Your task to perform on an android device: turn off location Image 0: 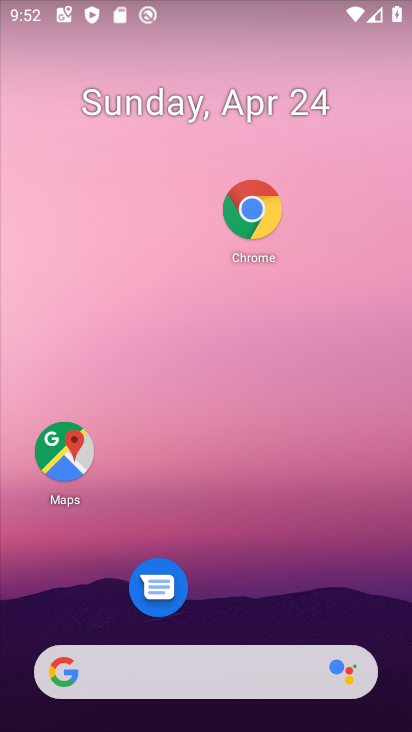
Step 0: drag from (228, 488) to (189, 20)
Your task to perform on an android device: turn off location Image 1: 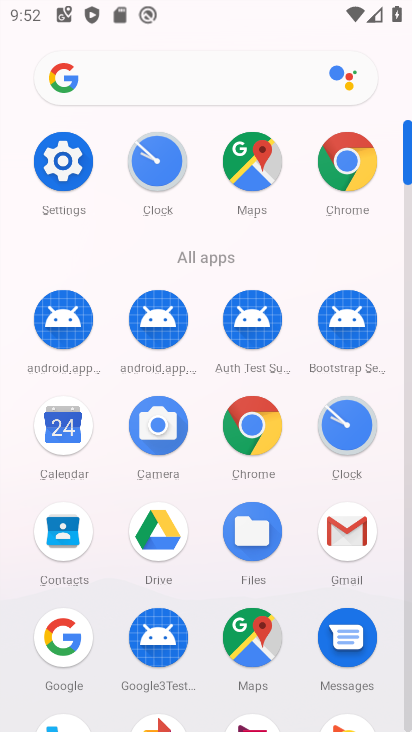
Step 1: click (62, 164)
Your task to perform on an android device: turn off location Image 2: 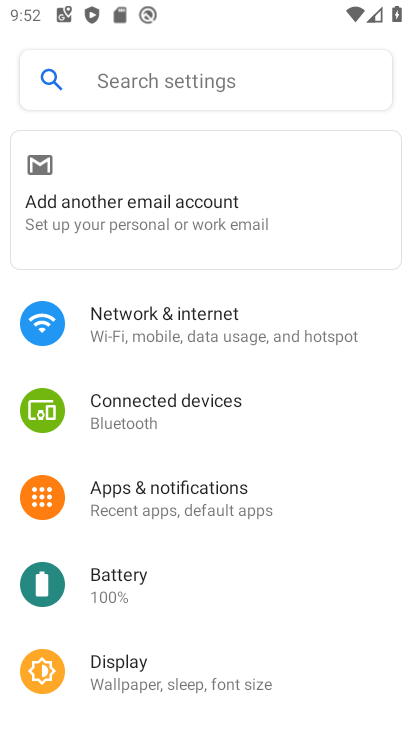
Step 2: drag from (202, 616) to (189, 126)
Your task to perform on an android device: turn off location Image 3: 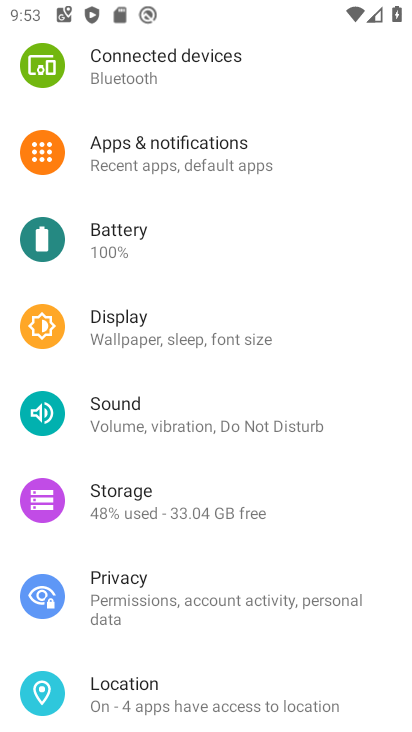
Step 3: click (154, 693)
Your task to perform on an android device: turn off location Image 4: 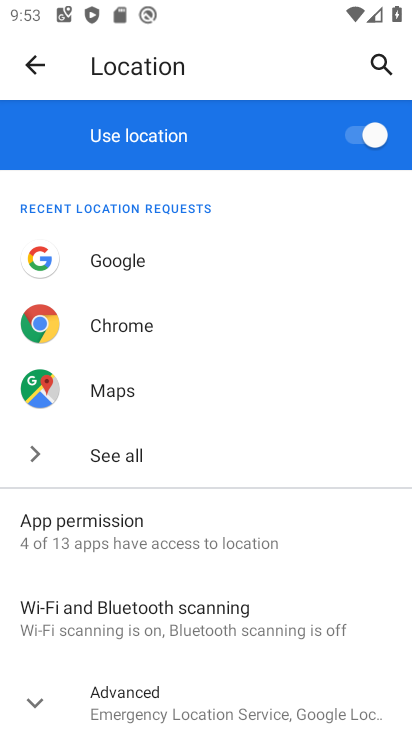
Step 4: click (358, 125)
Your task to perform on an android device: turn off location Image 5: 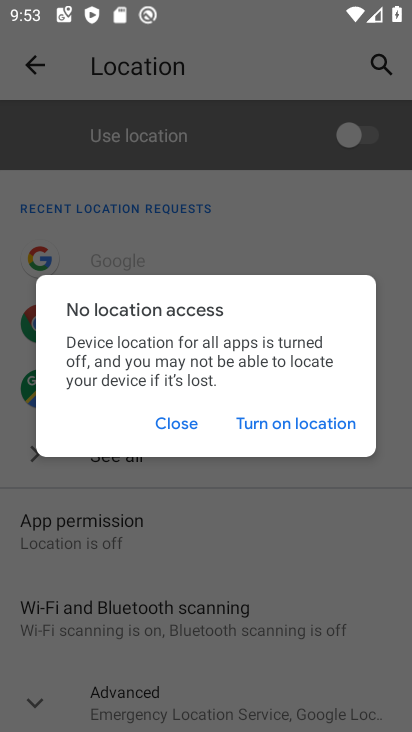
Step 5: click (284, 418)
Your task to perform on an android device: turn off location Image 6: 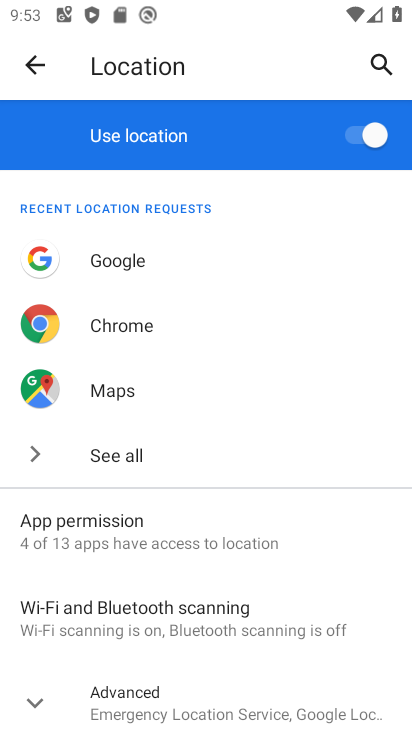
Step 6: click (359, 130)
Your task to perform on an android device: turn off location Image 7: 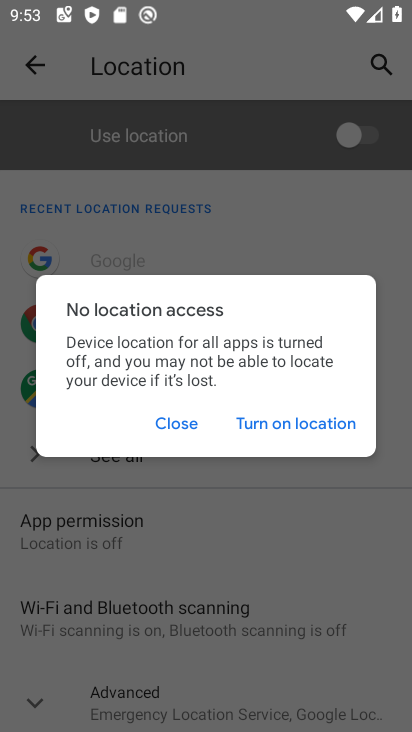
Step 7: click (174, 425)
Your task to perform on an android device: turn off location Image 8: 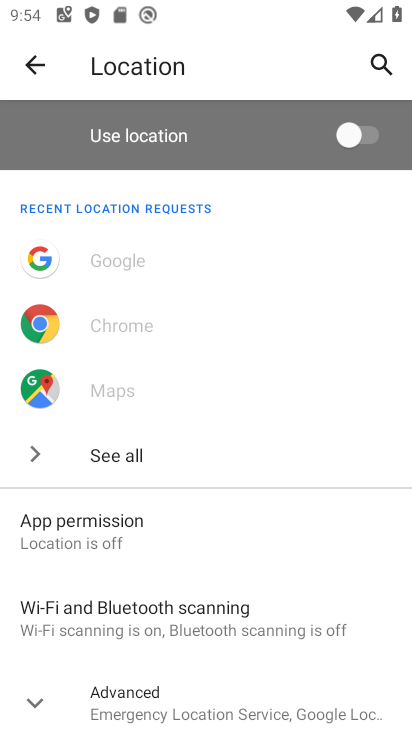
Step 8: task complete